Your task to perform on an android device: toggle improve location accuracy Image 0: 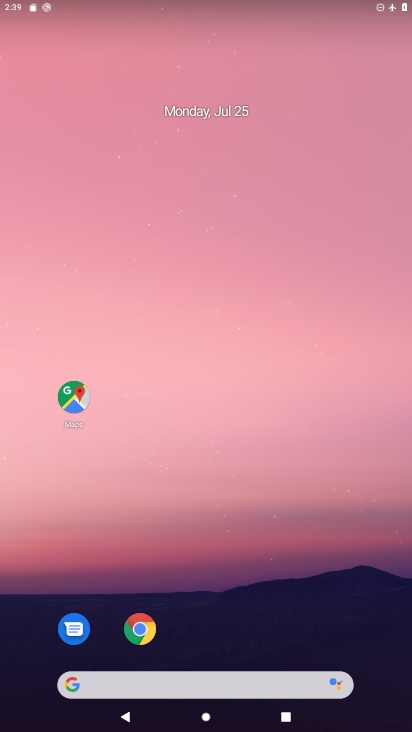
Step 0: drag from (287, 565) to (155, 42)
Your task to perform on an android device: toggle improve location accuracy Image 1: 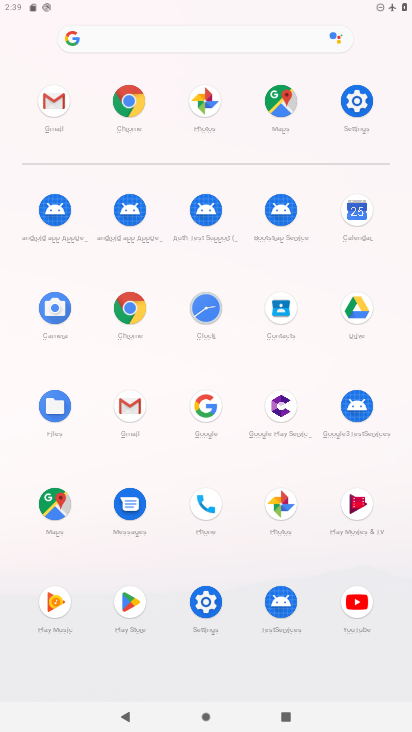
Step 1: click (353, 93)
Your task to perform on an android device: toggle improve location accuracy Image 2: 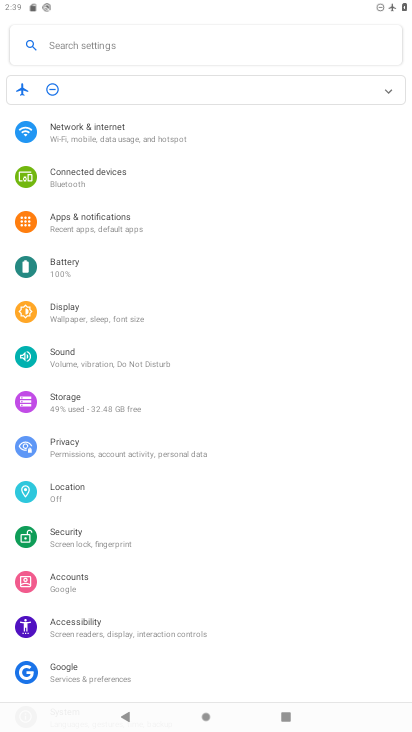
Step 2: click (104, 502)
Your task to perform on an android device: toggle improve location accuracy Image 3: 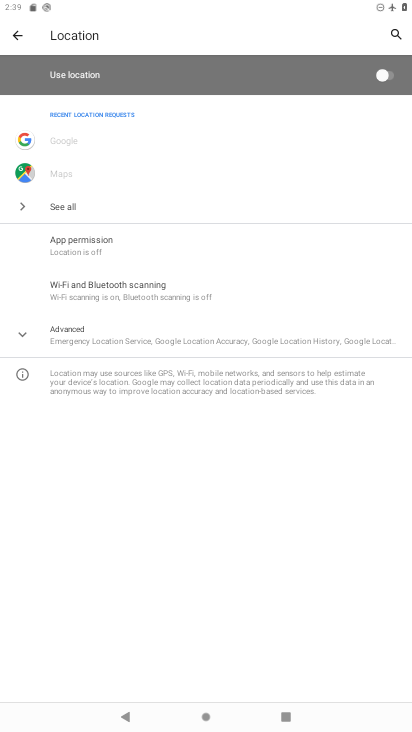
Step 3: click (86, 327)
Your task to perform on an android device: toggle improve location accuracy Image 4: 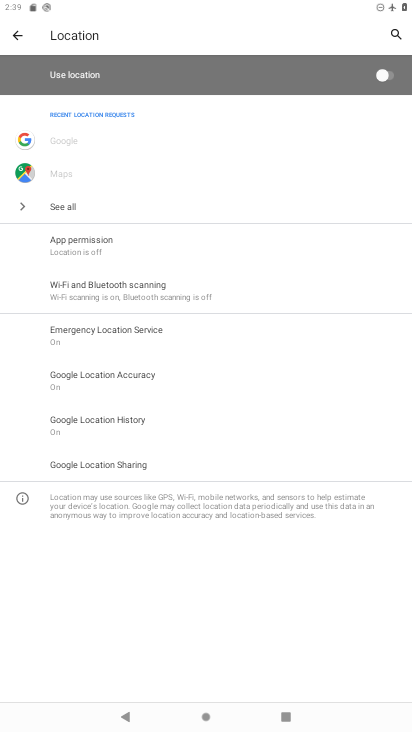
Step 4: click (109, 382)
Your task to perform on an android device: toggle improve location accuracy Image 5: 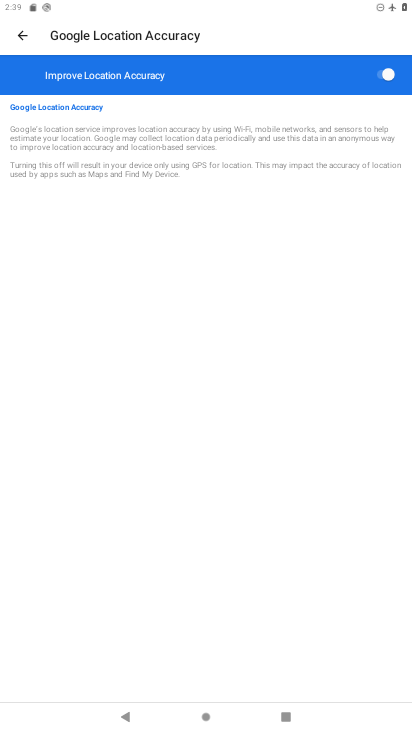
Step 5: click (372, 75)
Your task to perform on an android device: toggle improve location accuracy Image 6: 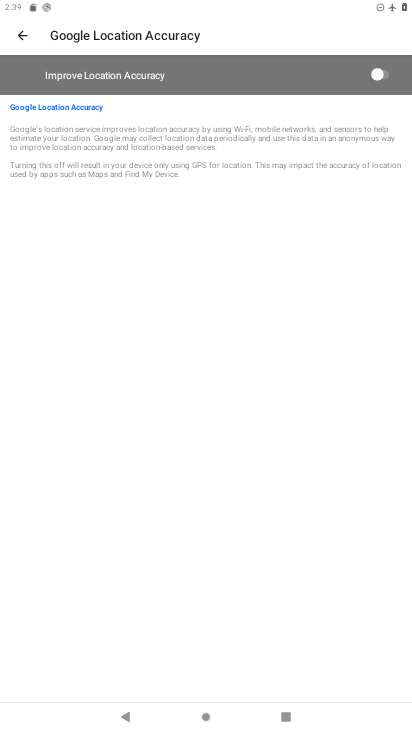
Step 6: task complete